Your task to perform on an android device: Open network settings Image 0: 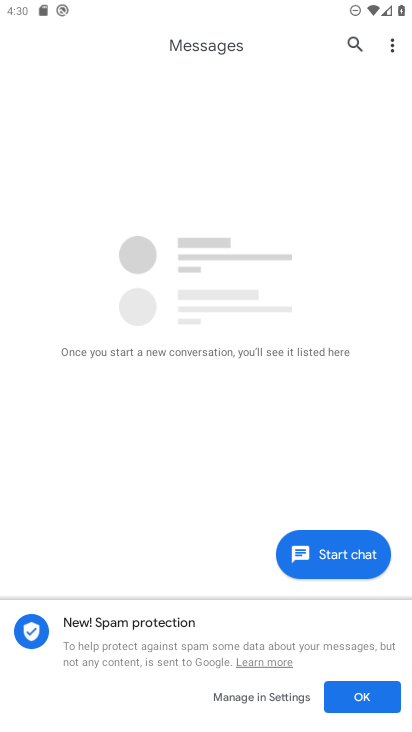
Step 0: press home button
Your task to perform on an android device: Open network settings Image 1: 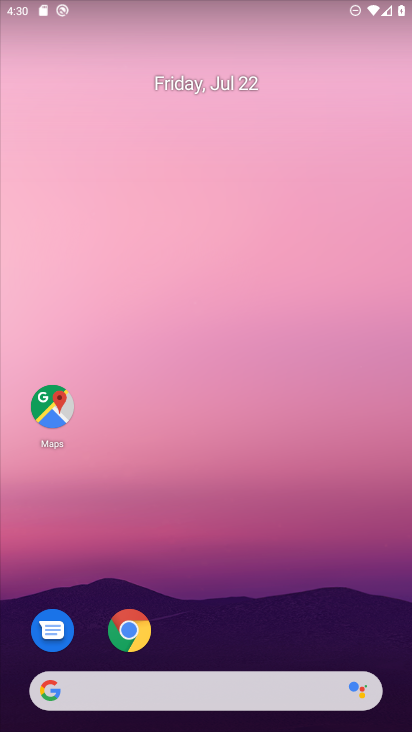
Step 1: drag from (229, 599) to (203, 19)
Your task to perform on an android device: Open network settings Image 2: 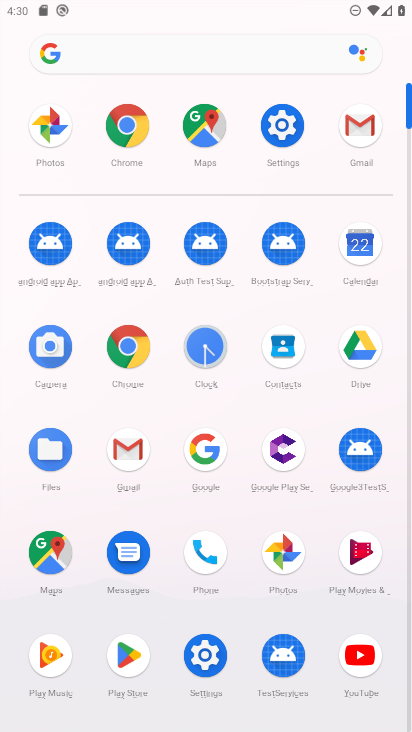
Step 2: click (192, 658)
Your task to perform on an android device: Open network settings Image 3: 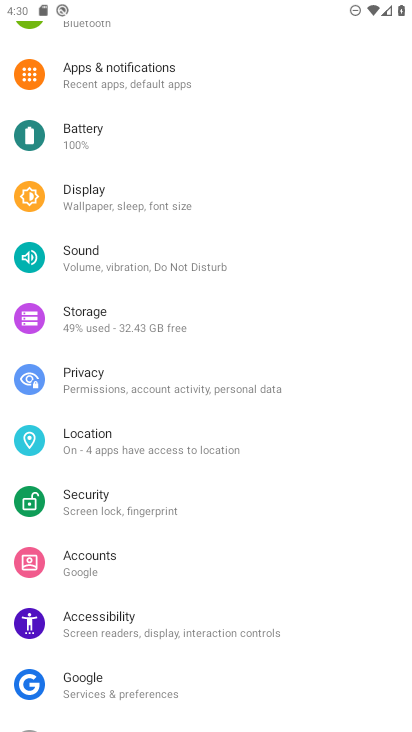
Step 3: drag from (144, 97) to (147, 610)
Your task to perform on an android device: Open network settings Image 4: 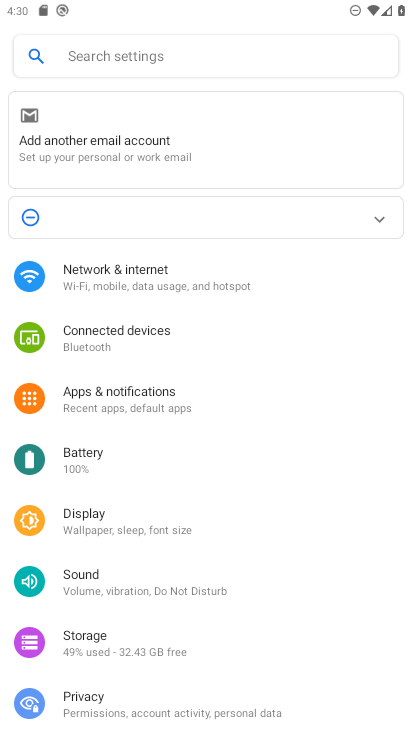
Step 4: click (117, 271)
Your task to perform on an android device: Open network settings Image 5: 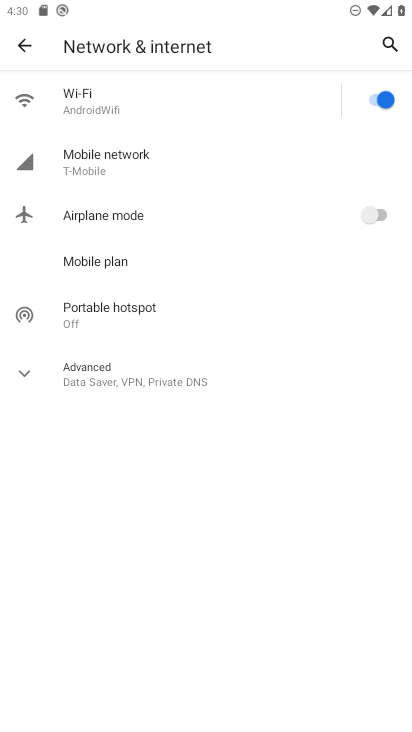
Step 5: task complete